Your task to perform on an android device: Open settings Image 0: 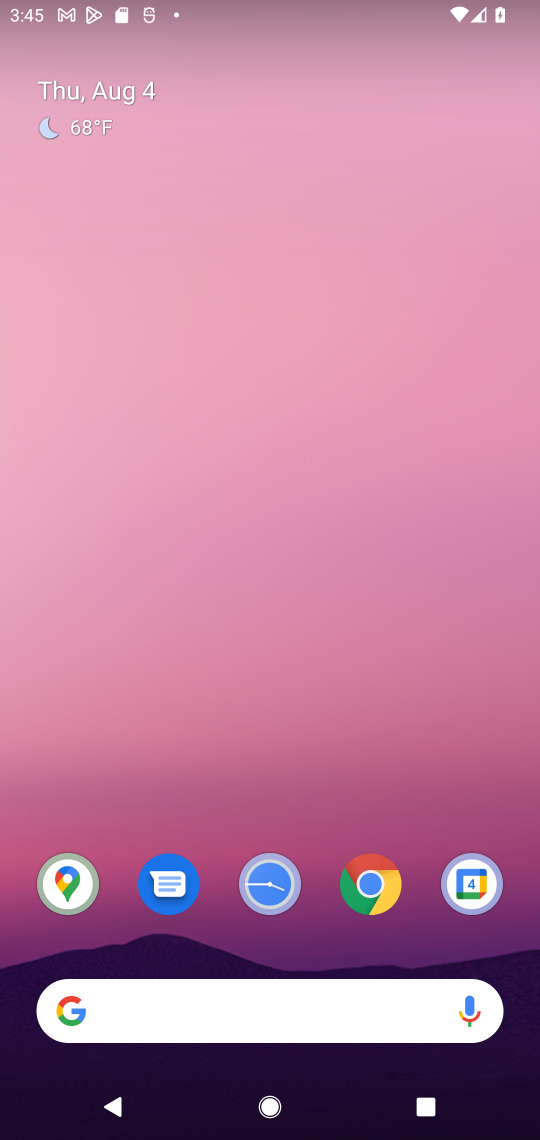
Step 0: drag from (339, 952) to (357, 158)
Your task to perform on an android device: Open settings Image 1: 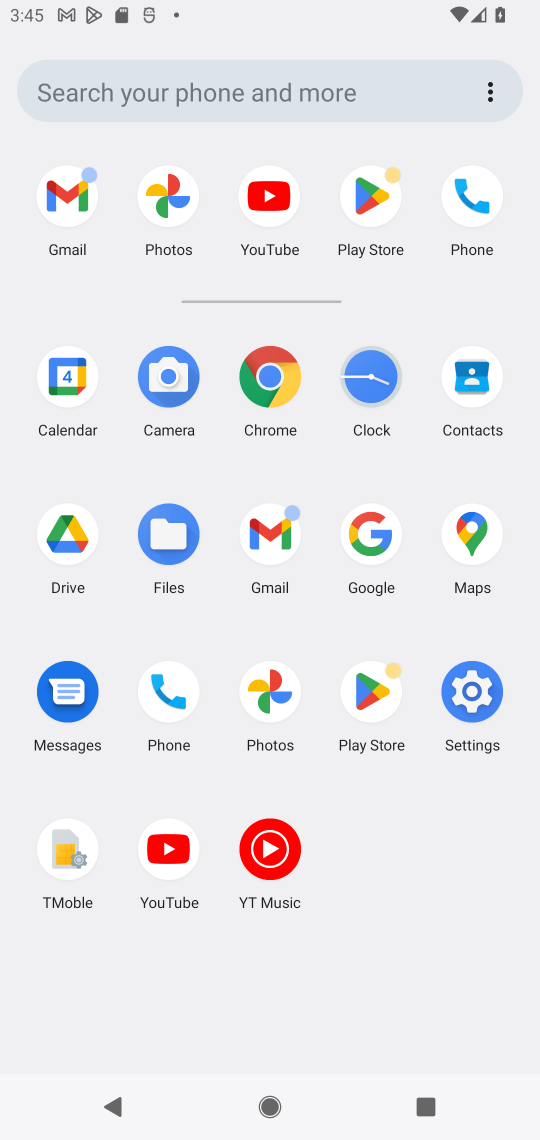
Step 1: click (463, 676)
Your task to perform on an android device: Open settings Image 2: 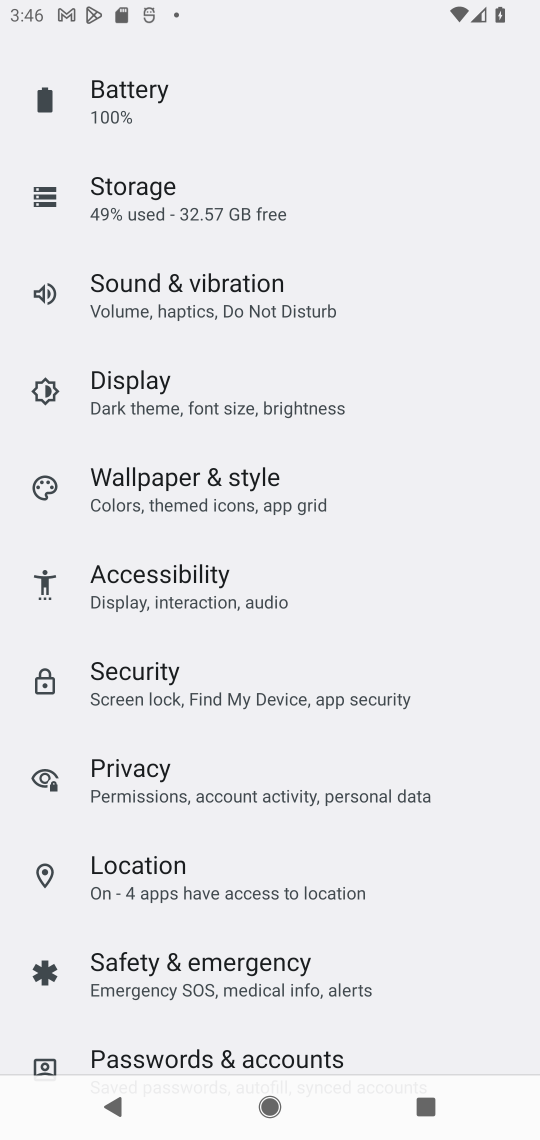
Step 2: task complete